Your task to perform on an android device: Open settings Image 0: 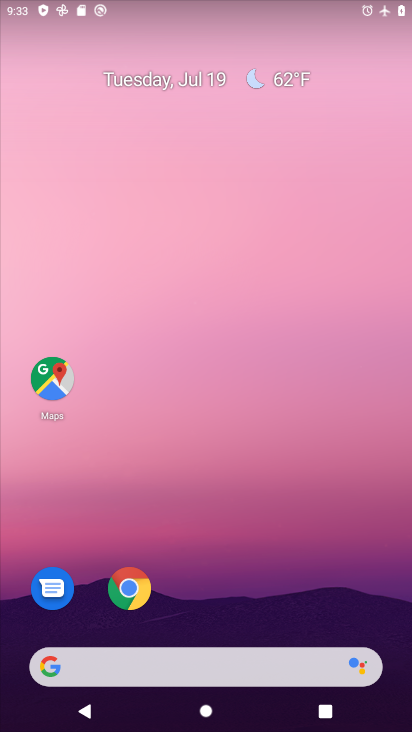
Step 0: drag from (283, 581) to (332, 31)
Your task to perform on an android device: Open settings Image 1: 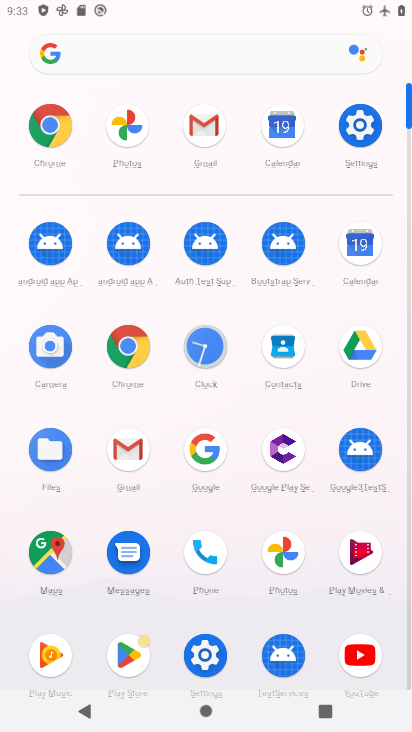
Step 1: click (364, 139)
Your task to perform on an android device: Open settings Image 2: 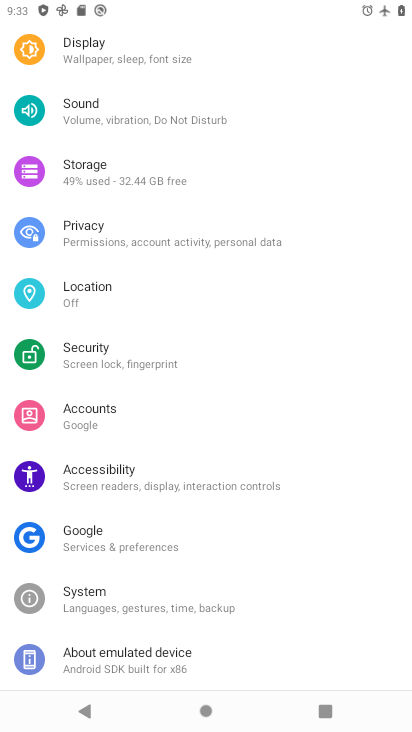
Step 2: task complete